Your task to perform on an android device: turn on improve location accuracy Image 0: 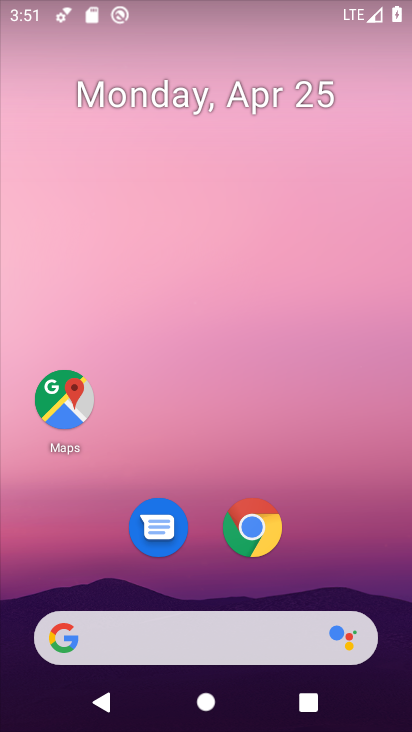
Step 0: drag from (394, 635) to (340, 71)
Your task to perform on an android device: turn on improve location accuracy Image 1: 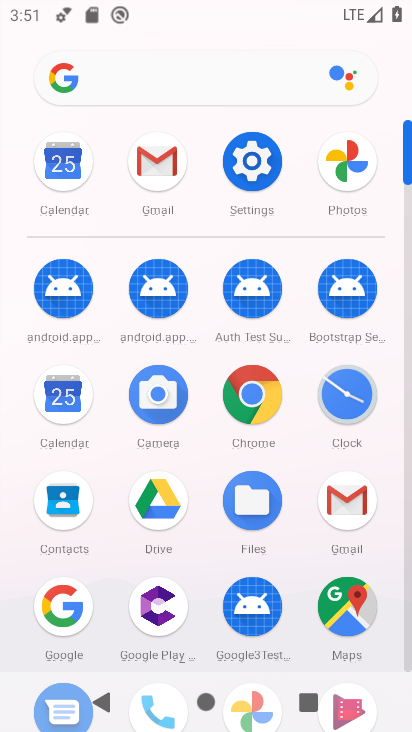
Step 1: click (406, 652)
Your task to perform on an android device: turn on improve location accuracy Image 2: 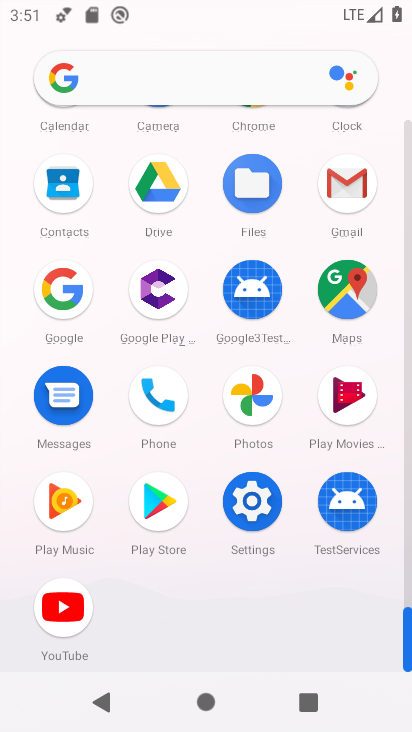
Step 2: click (250, 500)
Your task to perform on an android device: turn on improve location accuracy Image 3: 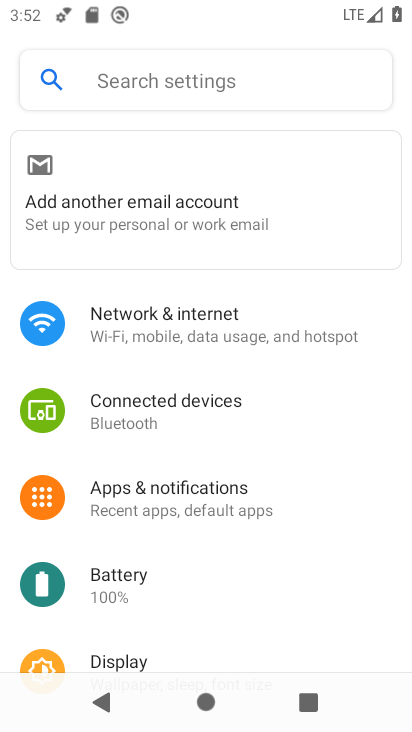
Step 3: drag from (288, 623) to (355, 275)
Your task to perform on an android device: turn on improve location accuracy Image 4: 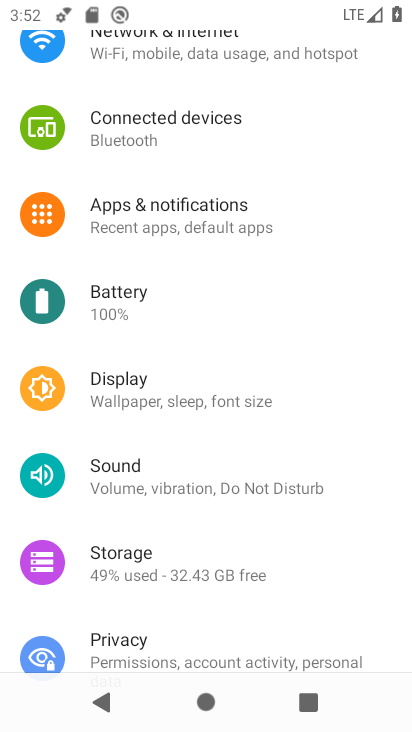
Step 4: drag from (317, 619) to (344, 198)
Your task to perform on an android device: turn on improve location accuracy Image 5: 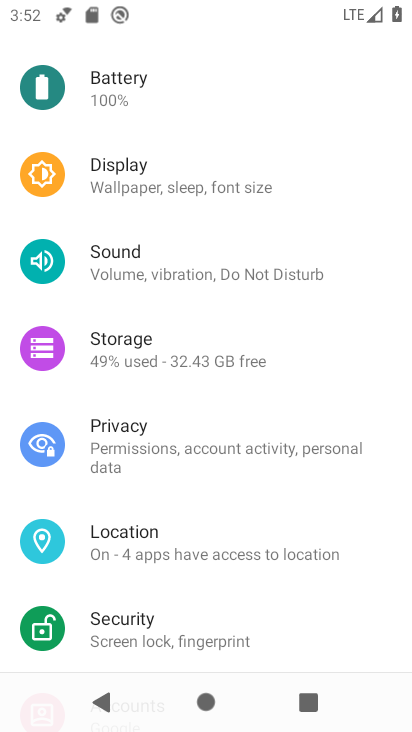
Step 5: click (120, 534)
Your task to perform on an android device: turn on improve location accuracy Image 6: 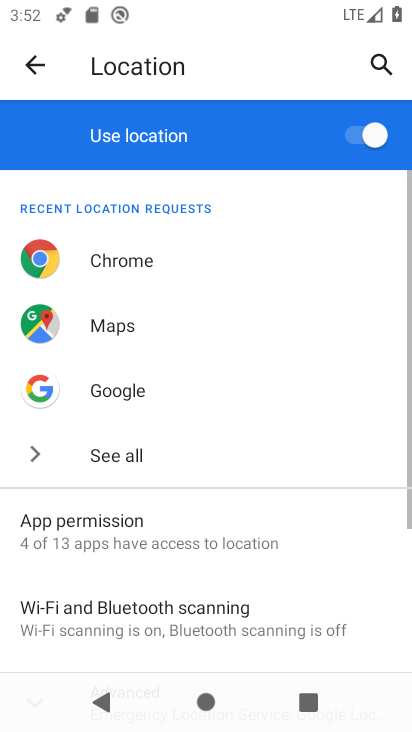
Step 6: drag from (332, 612) to (332, 168)
Your task to perform on an android device: turn on improve location accuracy Image 7: 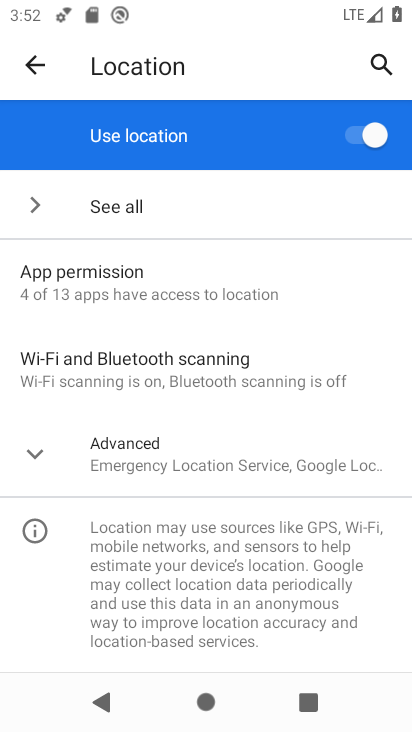
Step 7: click (31, 456)
Your task to perform on an android device: turn on improve location accuracy Image 8: 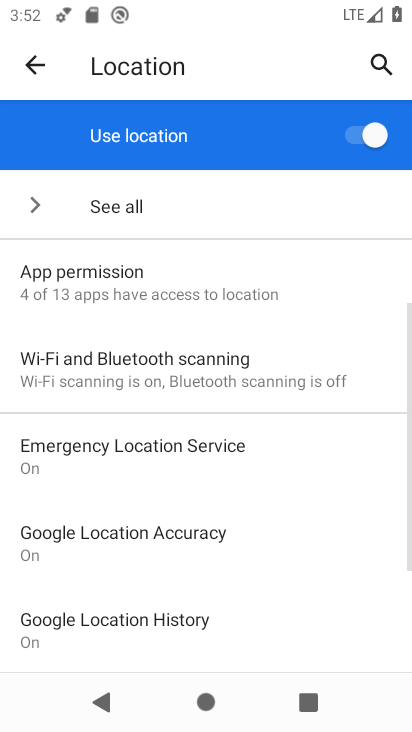
Step 8: drag from (298, 630) to (301, 284)
Your task to perform on an android device: turn on improve location accuracy Image 9: 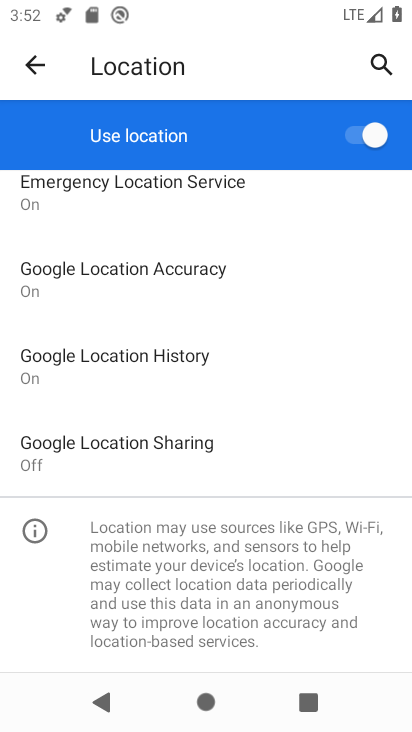
Step 9: click (59, 261)
Your task to perform on an android device: turn on improve location accuracy Image 10: 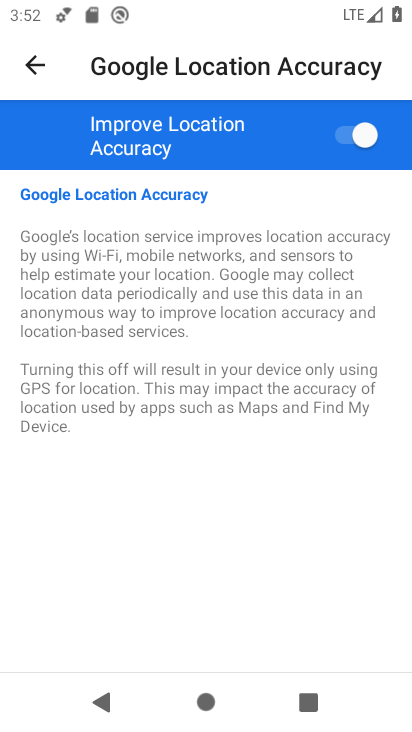
Step 10: task complete